Your task to perform on an android device: set an alarm Image 0: 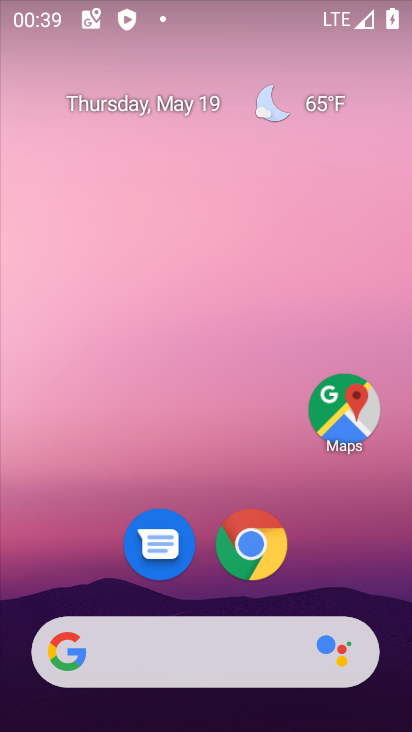
Step 0: drag from (381, 588) to (358, 177)
Your task to perform on an android device: set an alarm Image 1: 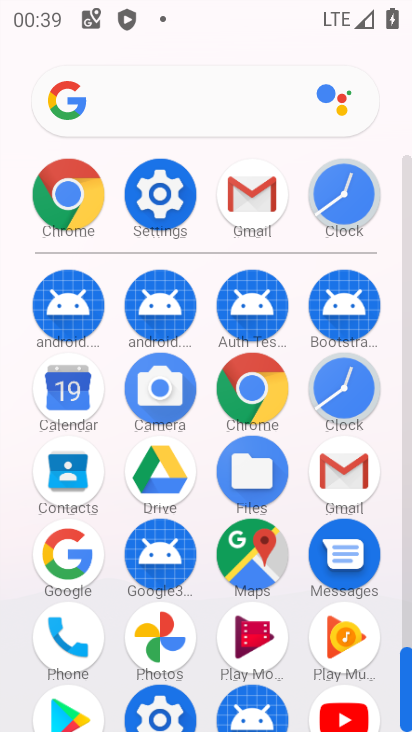
Step 1: click (368, 396)
Your task to perform on an android device: set an alarm Image 2: 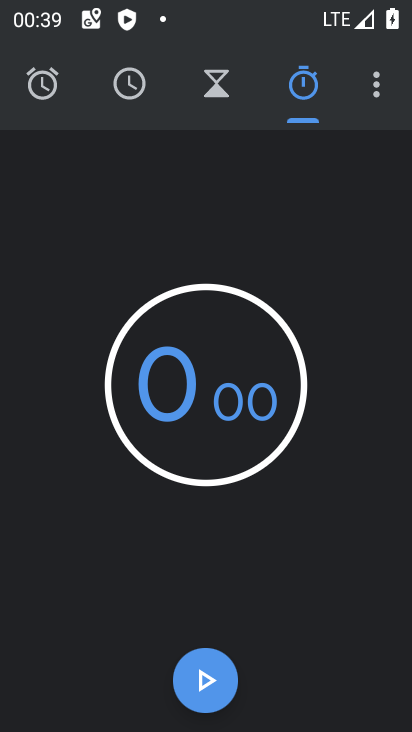
Step 2: click (43, 93)
Your task to perform on an android device: set an alarm Image 3: 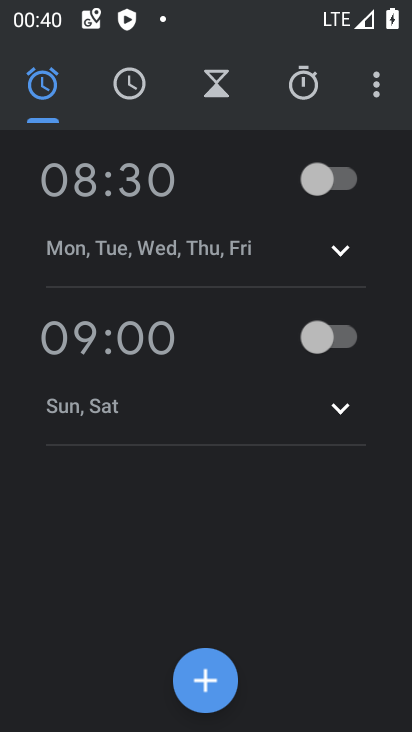
Step 3: click (200, 694)
Your task to perform on an android device: set an alarm Image 4: 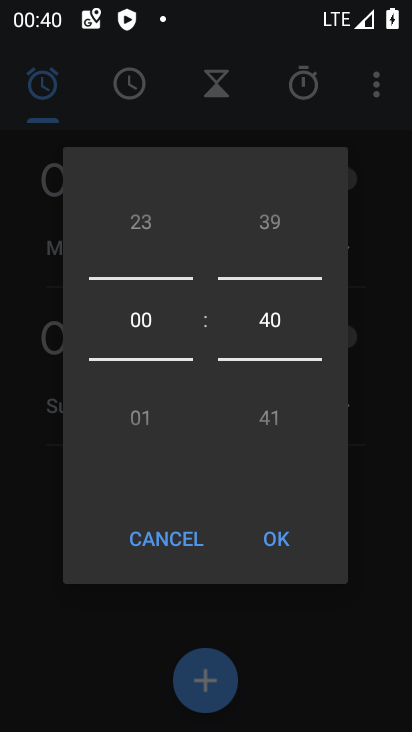
Step 4: click (289, 550)
Your task to perform on an android device: set an alarm Image 5: 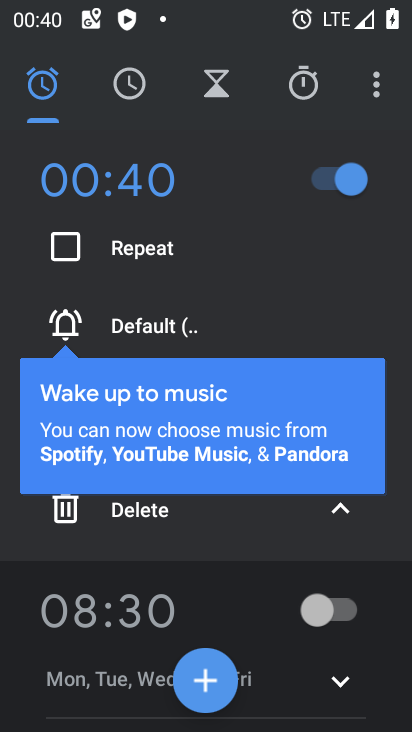
Step 5: task complete